Your task to perform on an android device: turn off location Image 0: 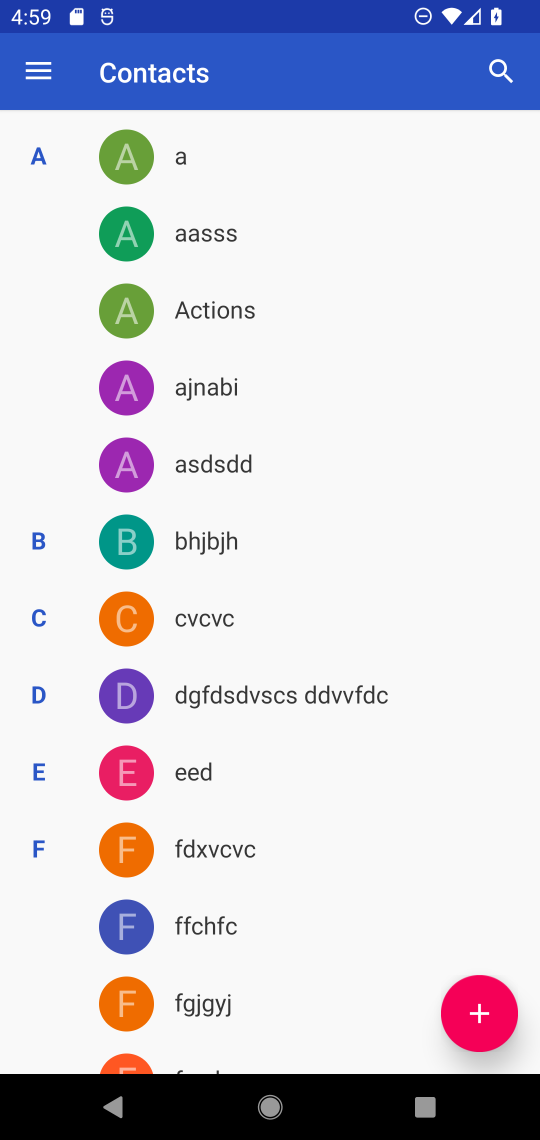
Step 0: press home button
Your task to perform on an android device: turn off location Image 1: 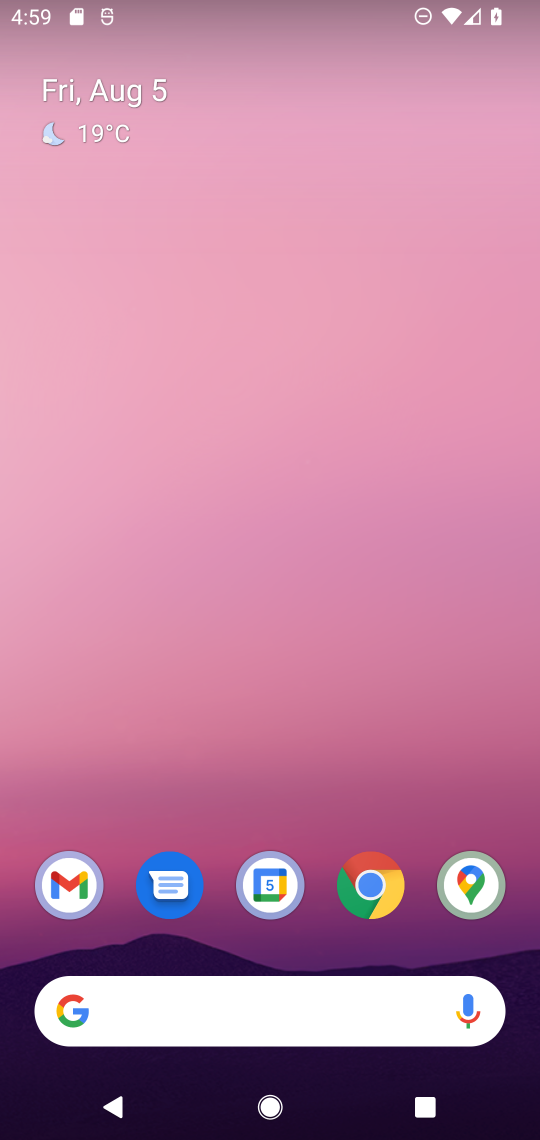
Step 1: drag from (314, 781) to (290, 127)
Your task to perform on an android device: turn off location Image 2: 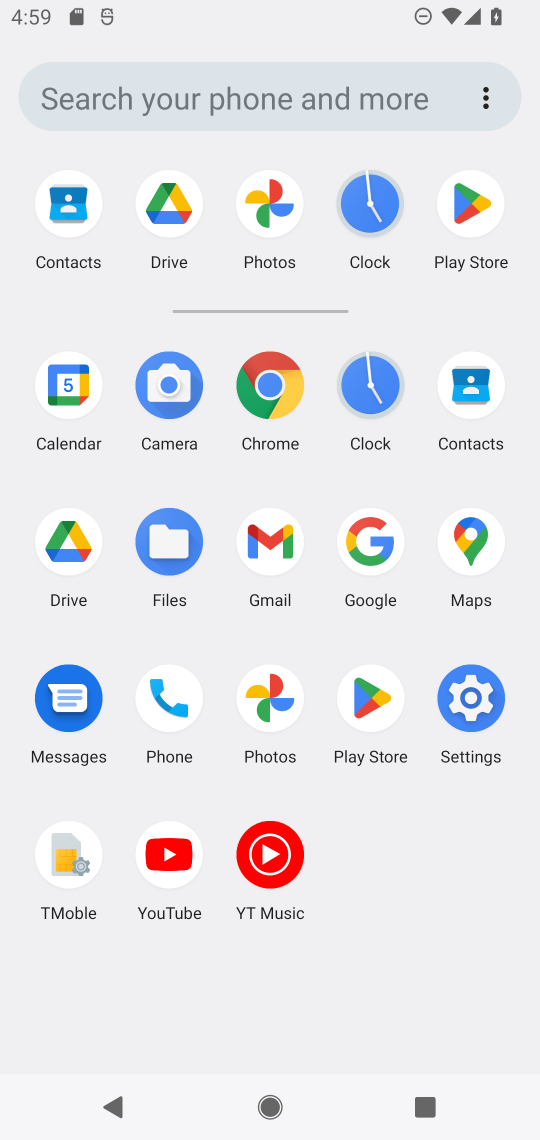
Step 2: click (485, 706)
Your task to perform on an android device: turn off location Image 3: 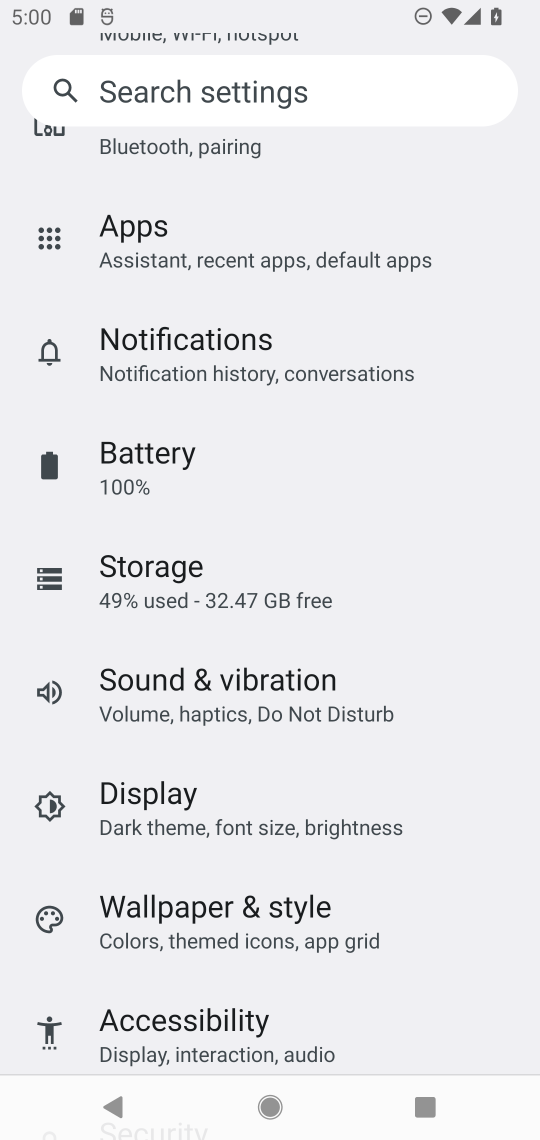
Step 3: drag from (237, 303) to (292, 939)
Your task to perform on an android device: turn off location Image 4: 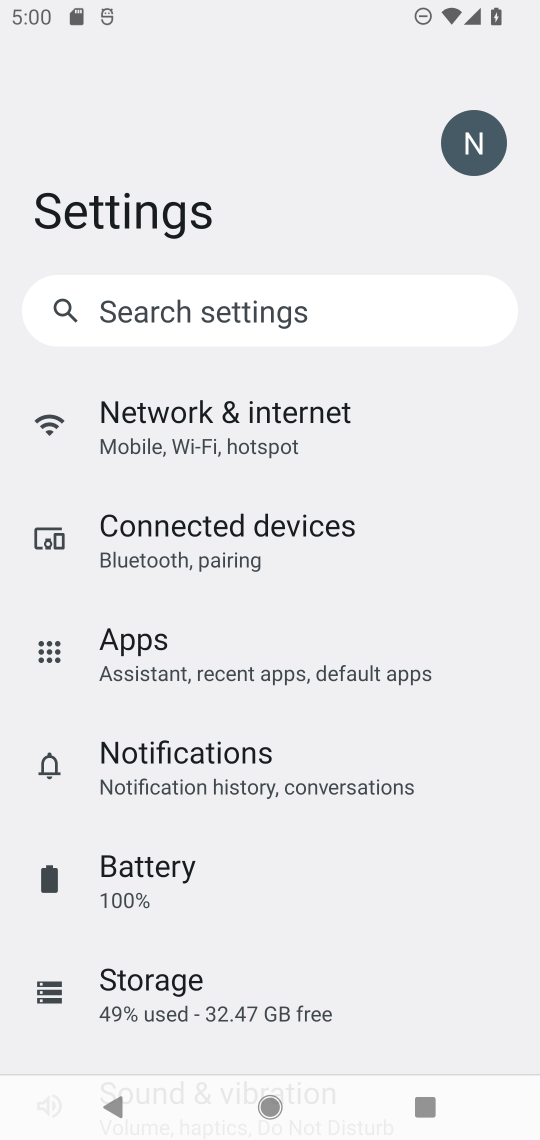
Step 4: drag from (192, 948) to (218, 445)
Your task to perform on an android device: turn off location Image 5: 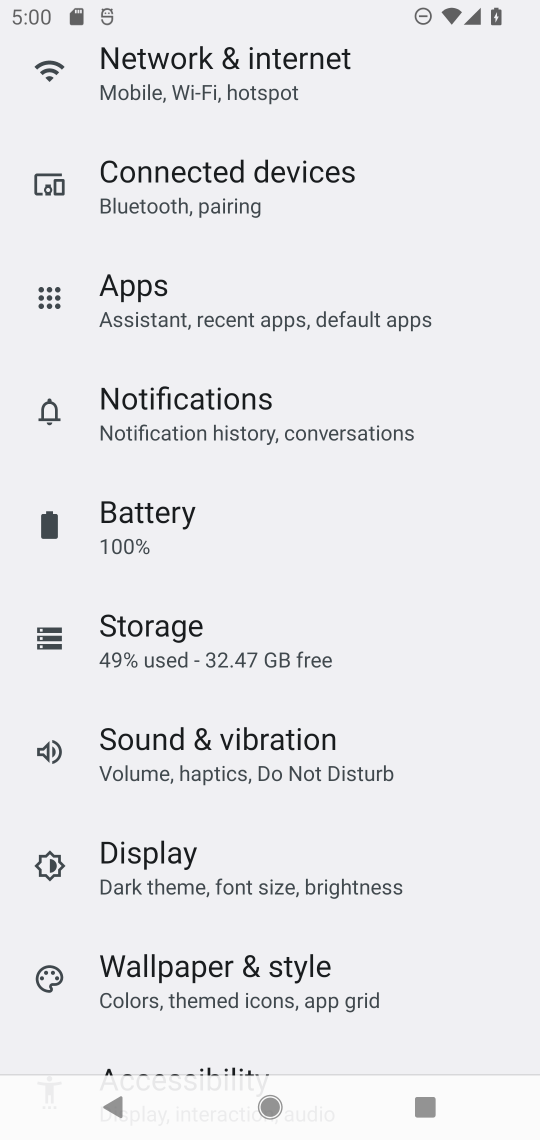
Step 5: drag from (158, 963) to (168, 520)
Your task to perform on an android device: turn off location Image 6: 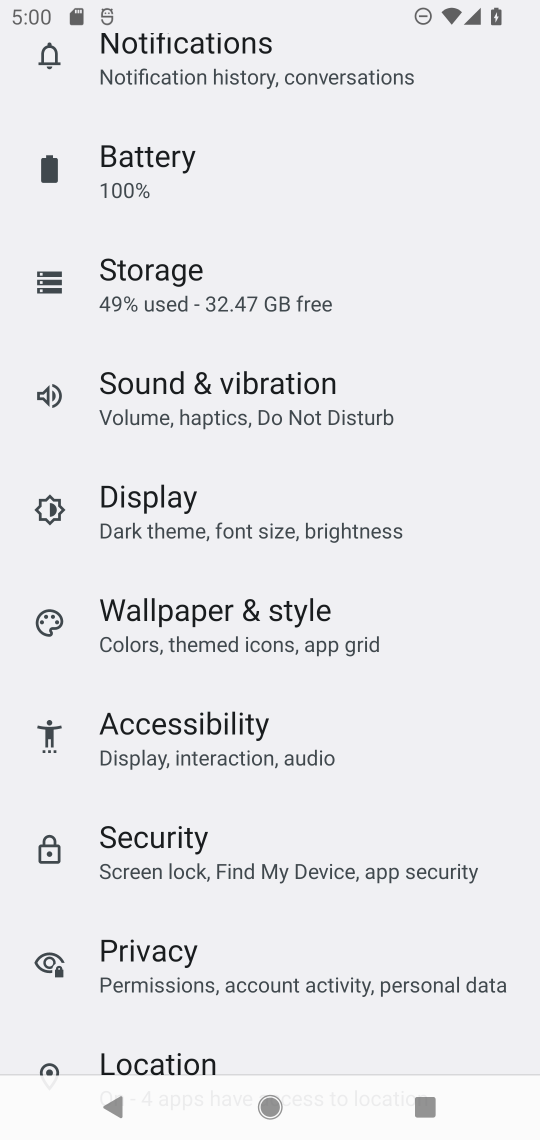
Step 6: click (140, 1060)
Your task to perform on an android device: turn off location Image 7: 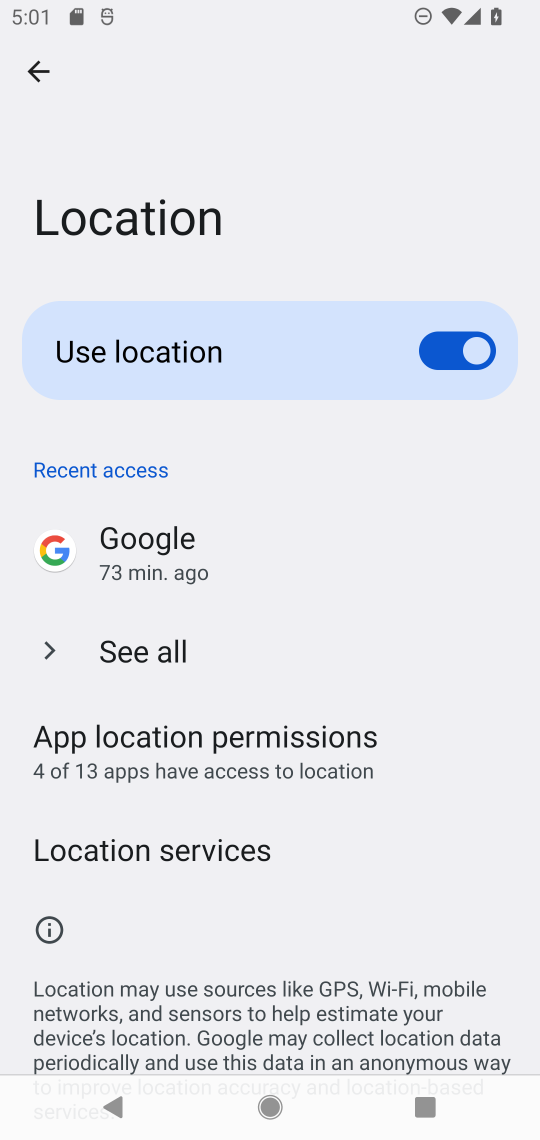
Step 7: click (451, 346)
Your task to perform on an android device: turn off location Image 8: 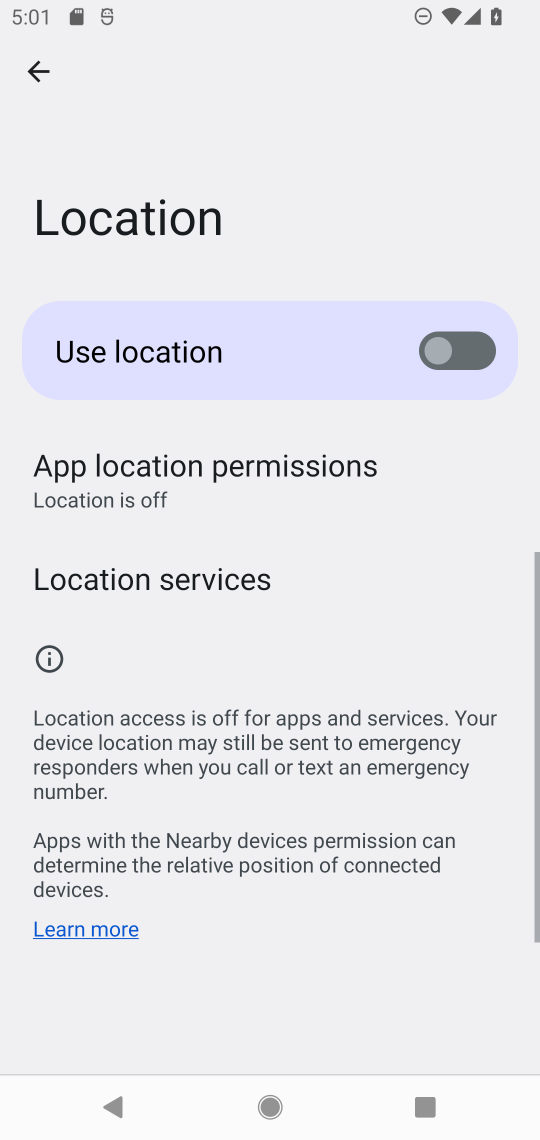
Step 8: task complete